Your task to perform on an android device: Go to location settings Image 0: 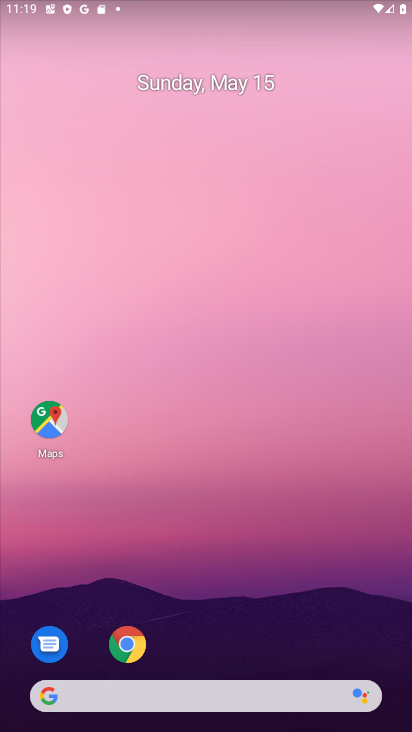
Step 0: click (276, 288)
Your task to perform on an android device: Go to location settings Image 1: 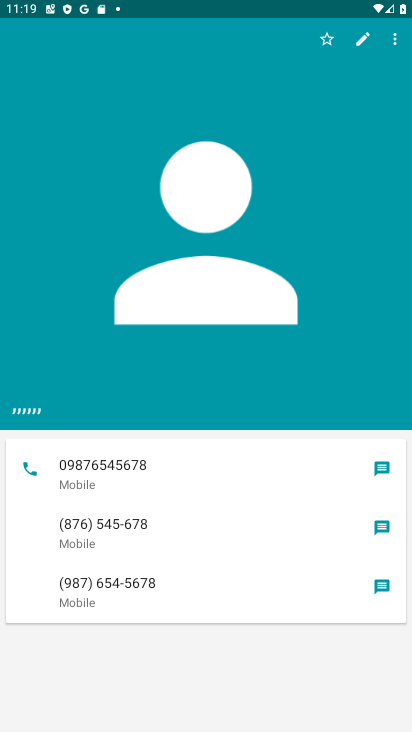
Step 1: press home button
Your task to perform on an android device: Go to location settings Image 2: 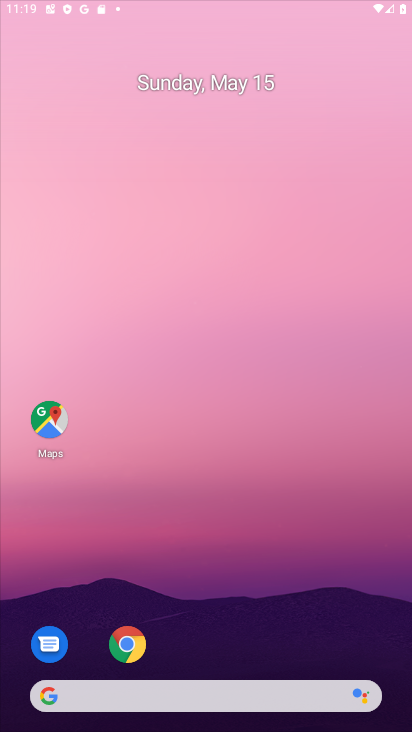
Step 2: drag from (183, 681) to (131, 18)
Your task to perform on an android device: Go to location settings Image 3: 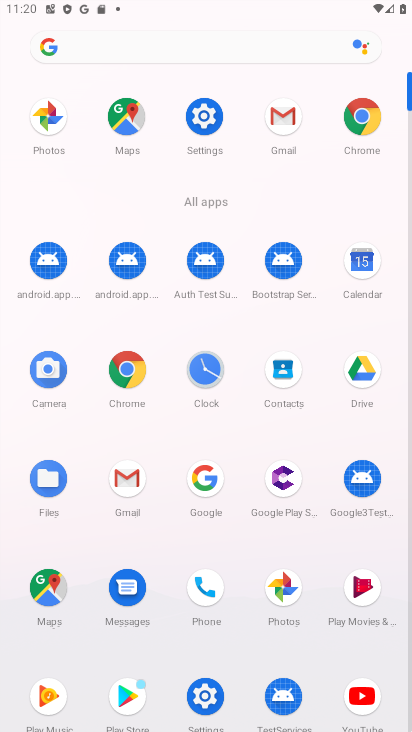
Step 3: click (204, 705)
Your task to perform on an android device: Go to location settings Image 4: 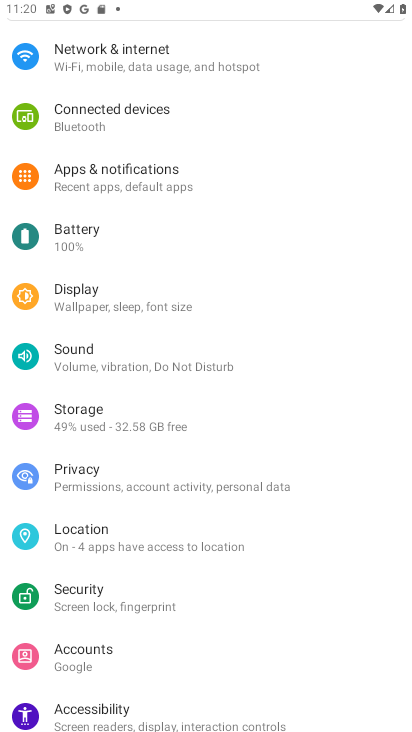
Step 4: click (140, 541)
Your task to perform on an android device: Go to location settings Image 5: 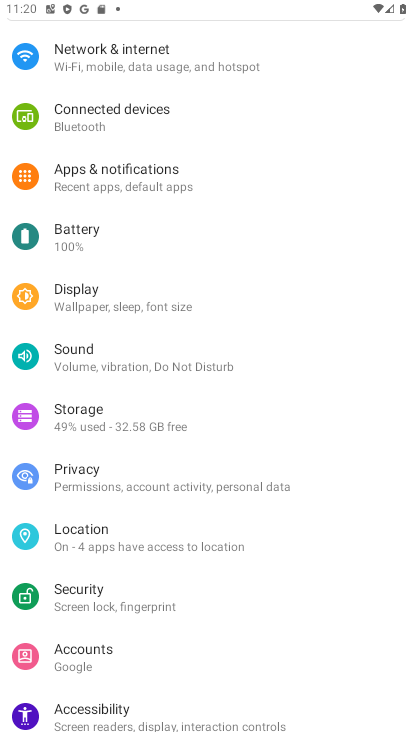
Step 5: click (128, 538)
Your task to perform on an android device: Go to location settings Image 6: 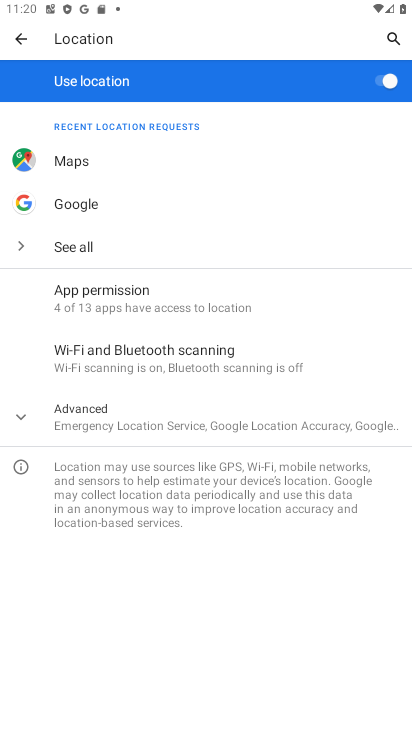
Step 6: click (124, 409)
Your task to perform on an android device: Go to location settings Image 7: 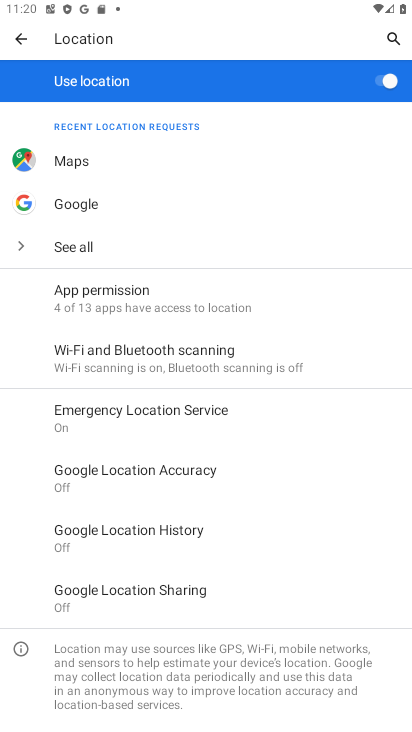
Step 7: task complete